Your task to perform on an android device: delete browsing data in the chrome app Image 0: 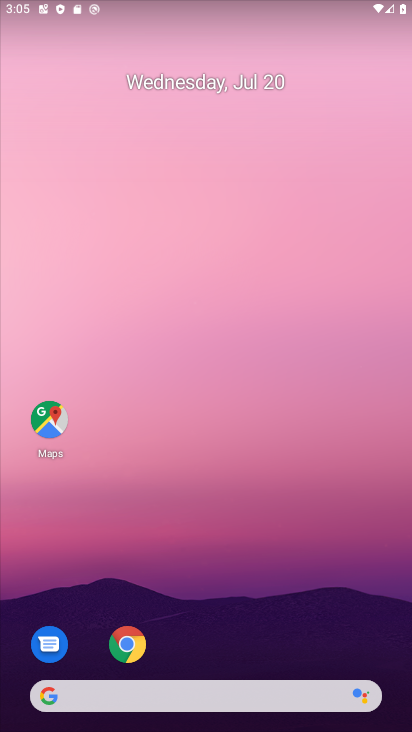
Step 0: click (142, 651)
Your task to perform on an android device: delete browsing data in the chrome app Image 1: 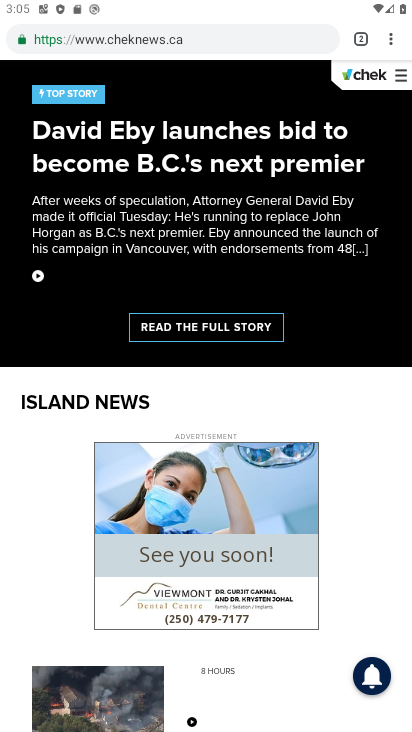
Step 1: click (390, 37)
Your task to perform on an android device: delete browsing data in the chrome app Image 2: 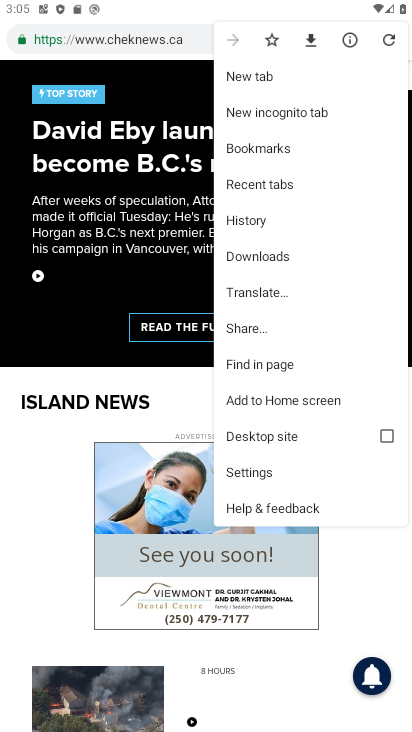
Step 2: click (266, 471)
Your task to perform on an android device: delete browsing data in the chrome app Image 3: 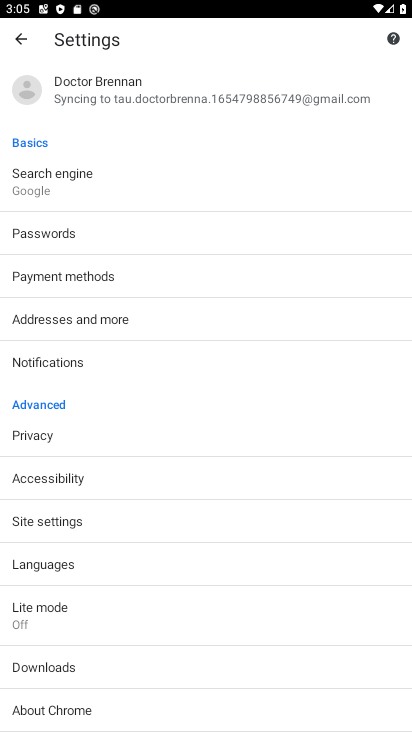
Step 3: click (46, 435)
Your task to perform on an android device: delete browsing data in the chrome app Image 4: 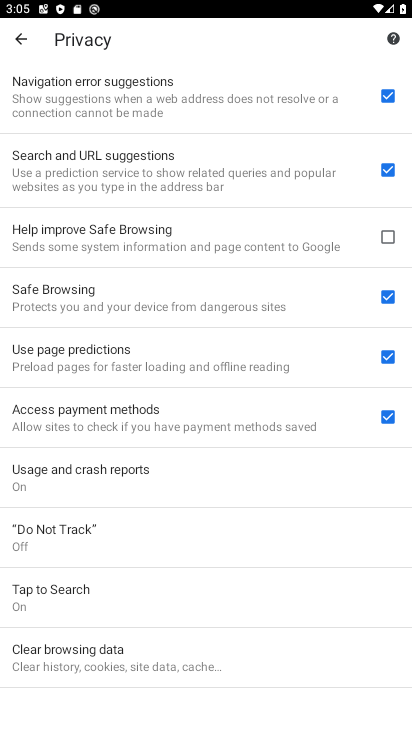
Step 4: click (82, 664)
Your task to perform on an android device: delete browsing data in the chrome app Image 5: 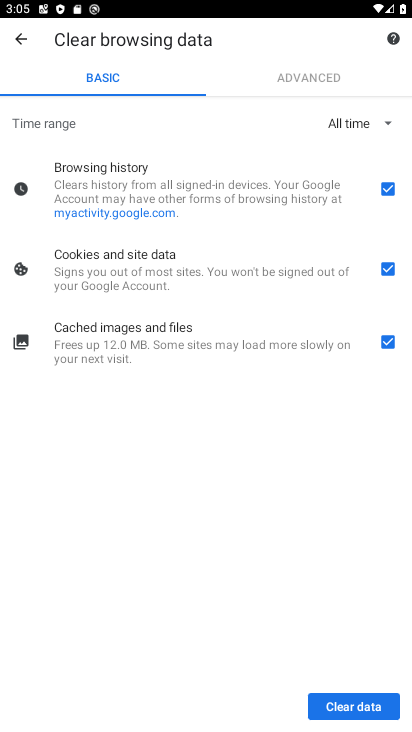
Step 5: click (356, 700)
Your task to perform on an android device: delete browsing data in the chrome app Image 6: 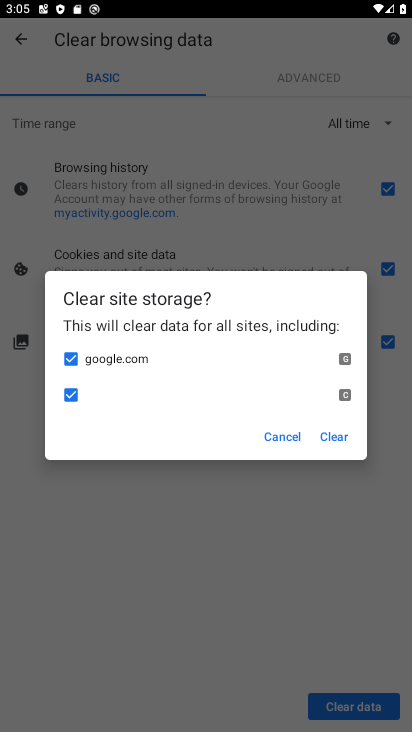
Step 6: click (327, 439)
Your task to perform on an android device: delete browsing data in the chrome app Image 7: 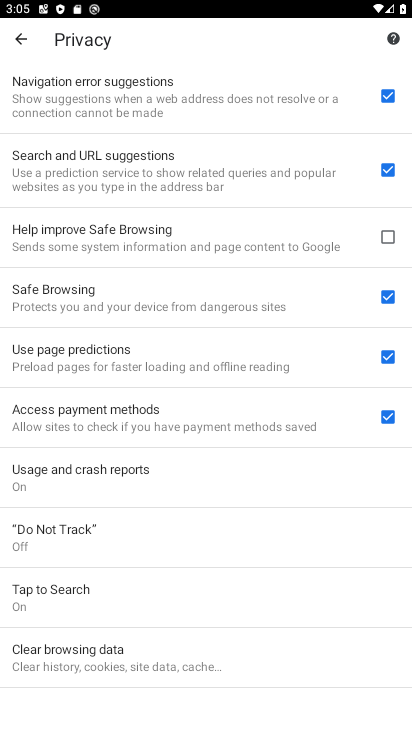
Step 7: task complete